Your task to perform on an android device: stop showing notifications on the lock screen Image 0: 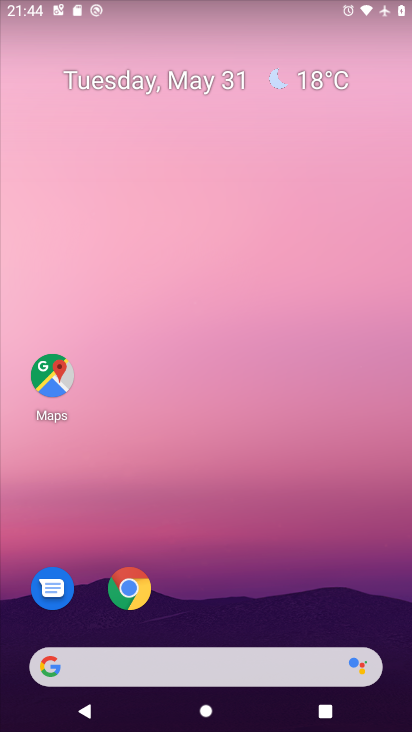
Step 0: drag from (202, 626) to (276, 245)
Your task to perform on an android device: stop showing notifications on the lock screen Image 1: 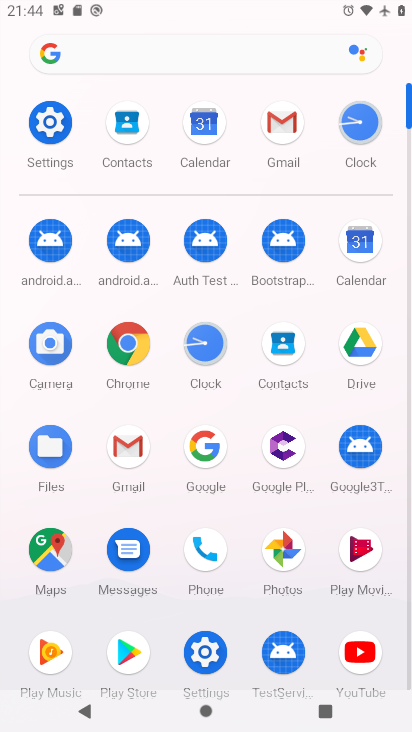
Step 1: click (49, 127)
Your task to perform on an android device: stop showing notifications on the lock screen Image 2: 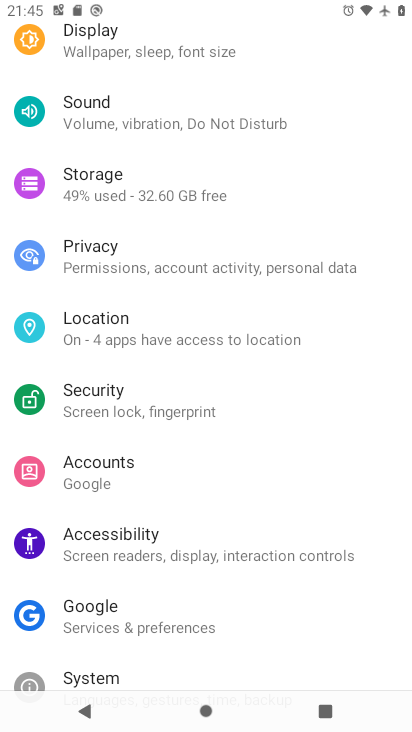
Step 2: drag from (292, 298) to (270, 520)
Your task to perform on an android device: stop showing notifications on the lock screen Image 3: 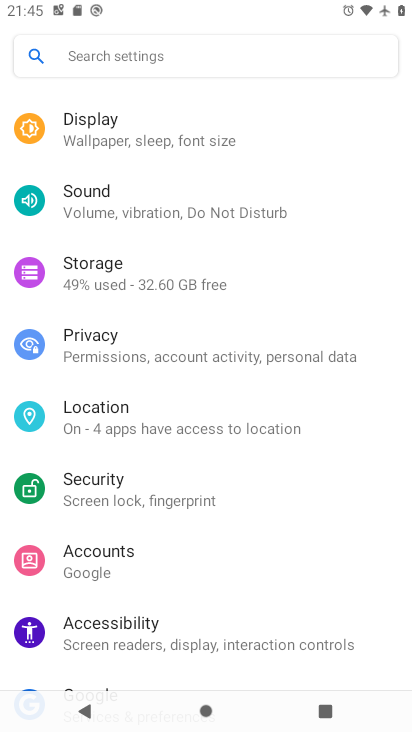
Step 3: drag from (284, 436) to (247, 582)
Your task to perform on an android device: stop showing notifications on the lock screen Image 4: 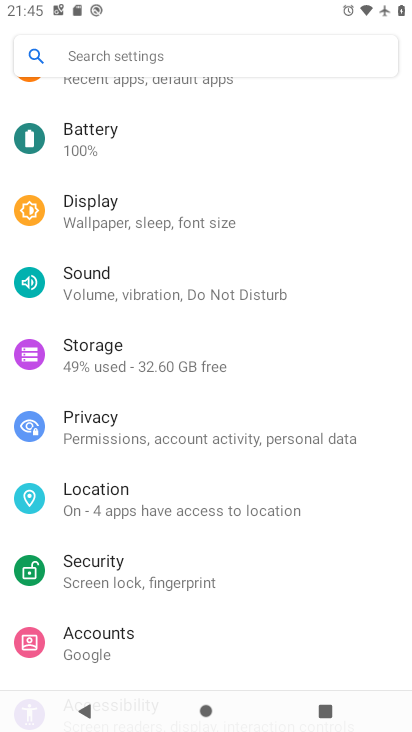
Step 4: drag from (129, 140) to (106, 529)
Your task to perform on an android device: stop showing notifications on the lock screen Image 5: 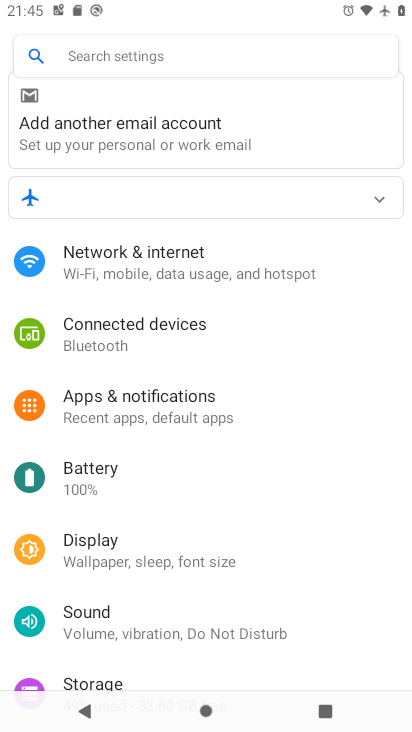
Step 5: click (159, 407)
Your task to perform on an android device: stop showing notifications on the lock screen Image 6: 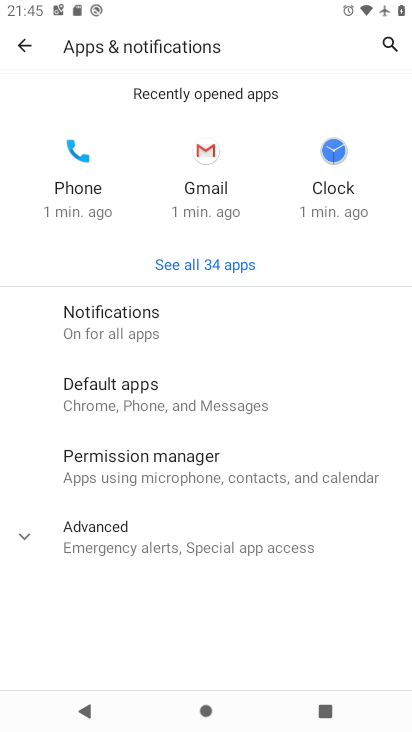
Step 6: click (128, 323)
Your task to perform on an android device: stop showing notifications on the lock screen Image 7: 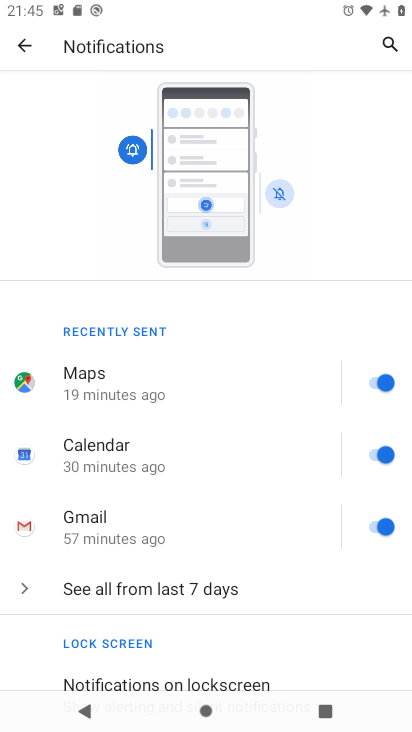
Step 7: drag from (201, 621) to (285, 329)
Your task to perform on an android device: stop showing notifications on the lock screen Image 8: 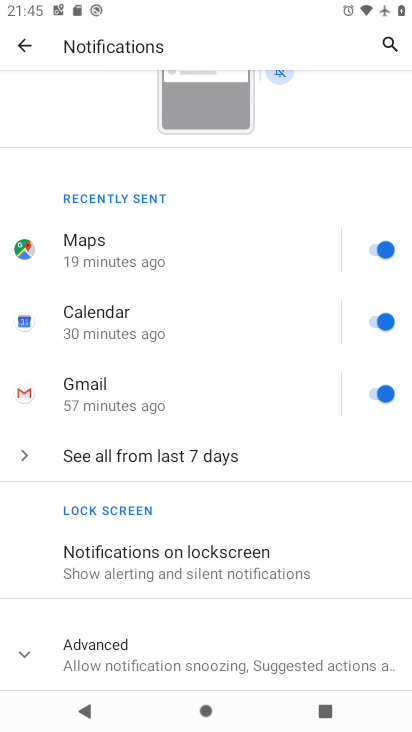
Step 8: click (206, 546)
Your task to perform on an android device: stop showing notifications on the lock screen Image 9: 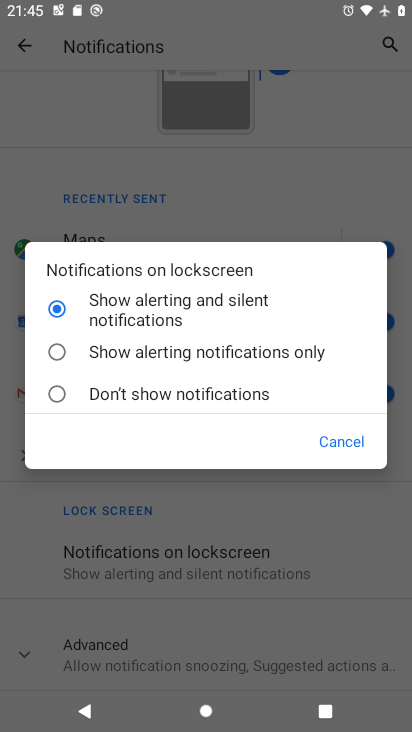
Step 9: click (55, 398)
Your task to perform on an android device: stop showing notifications on the lock screen Image 10: 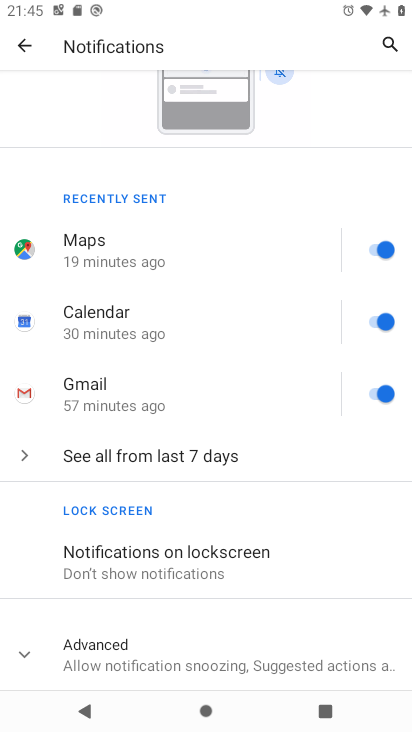
Step 10: task complete